Your task to perform on an android device: open wifi settings Image 0: 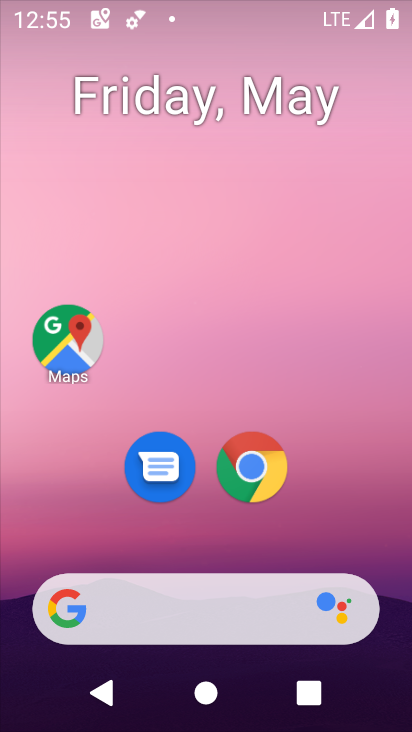
Step 0: click (275, 496)
Your task to perform on an android device: open wifi settings Image 1: 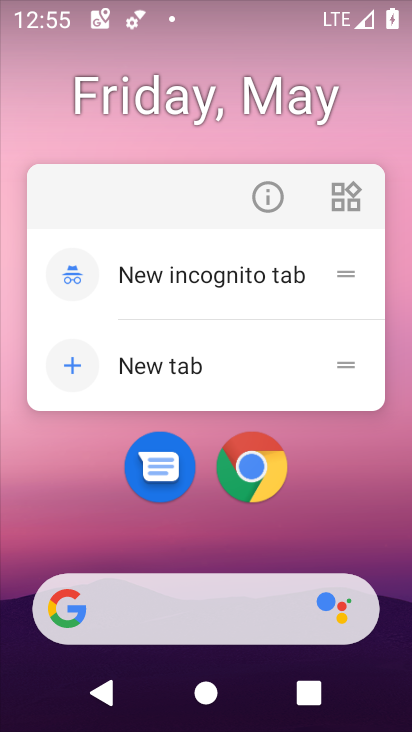
Step 1: click (269, 480)
Your task to perform on an android device: open wifi settings Image 2: 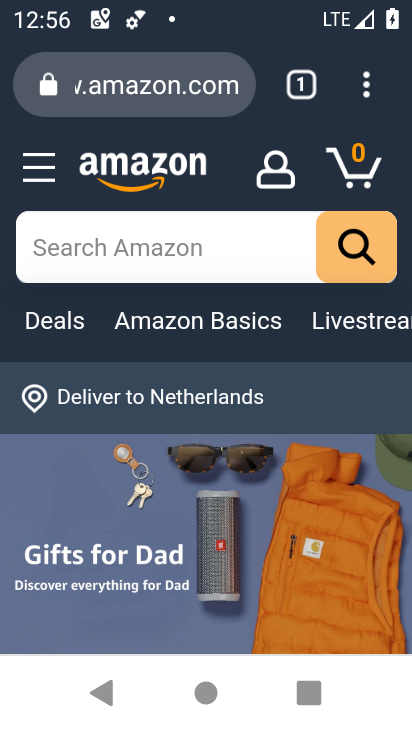
Step 2: press home button
Your task to perform on an android device: open wifi settings Image 3: 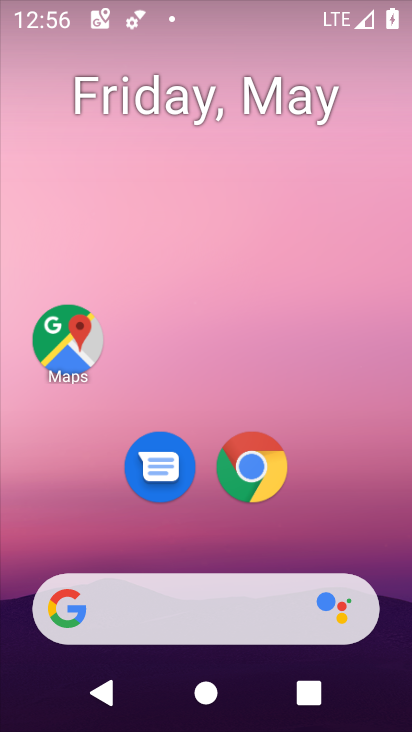
Step 3: drag from (332, 508) to (289, 72)
Your task to perform on an android device: open wifi settings Image 4: 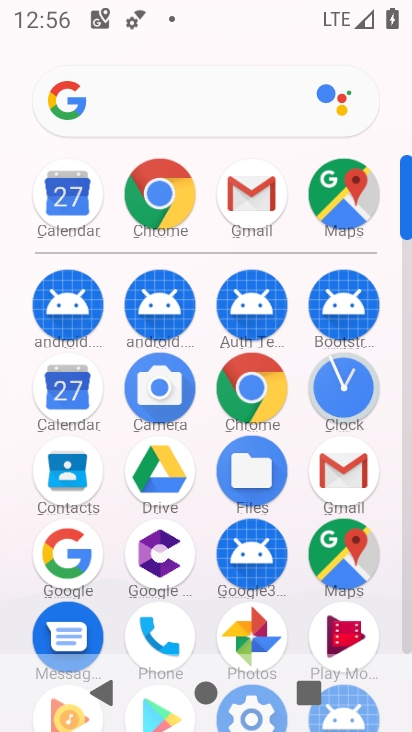
Step 4: drag from (392, 633) to (383, 295)
Your task to perform on an android device: open wifi settings Image 5: 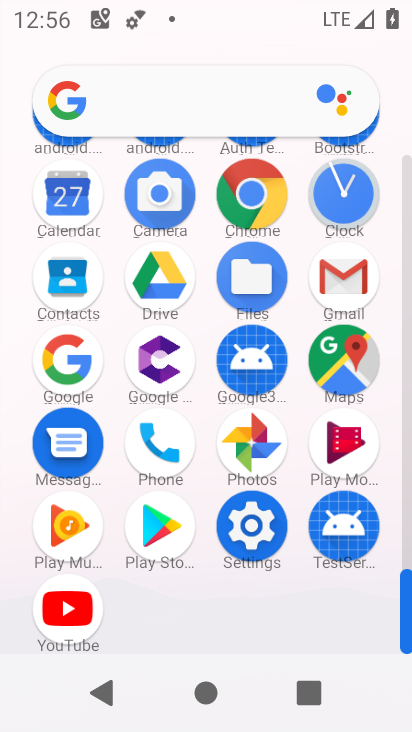
Step 5: click (269, 520)
Your task to perform on an android device: open wifi settings Image 6: 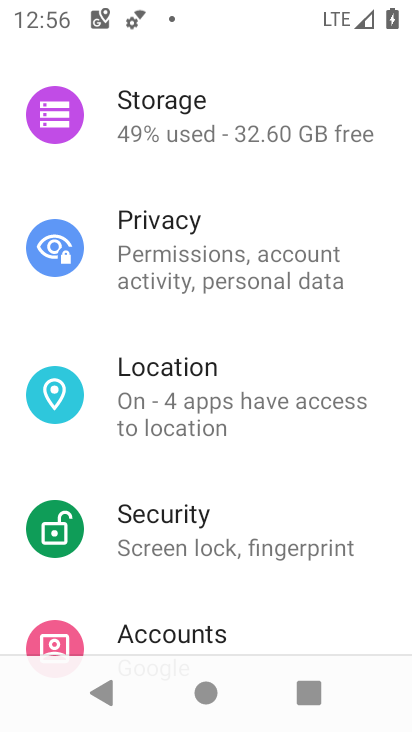
Step 6: drag from (217, 158) to (178, 586)
Your task to perform on an android device: open wifi settings Image 7: 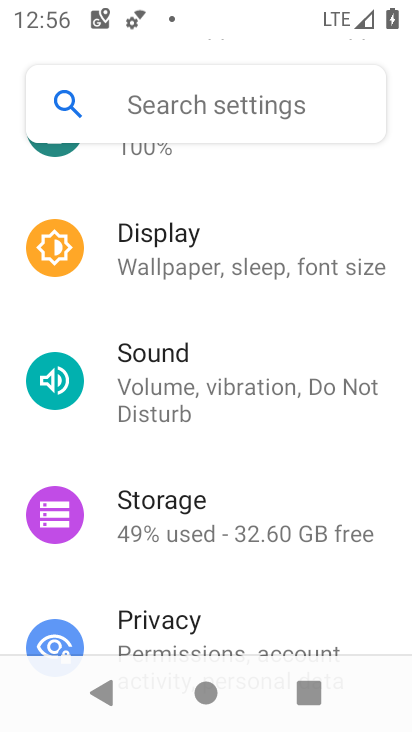
Step 7: drag from (220, 374) to (217, 607)
Your task to perform on an android device: open wifi settings Image 8: 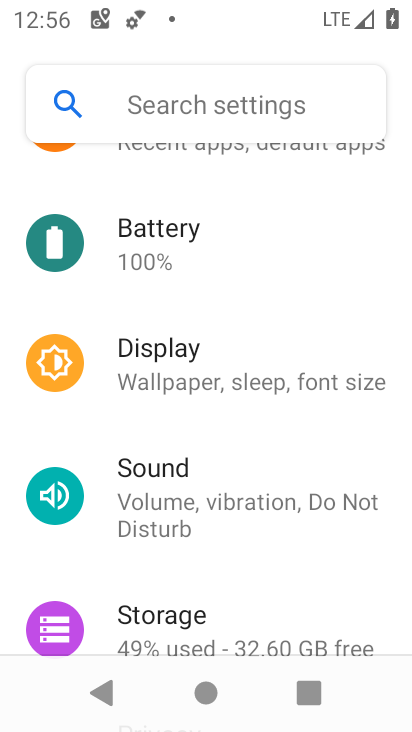
Step 8: drag from (180, 217) to (188, 565)
Your task to perform on an android device: open wifi settings Image 9: 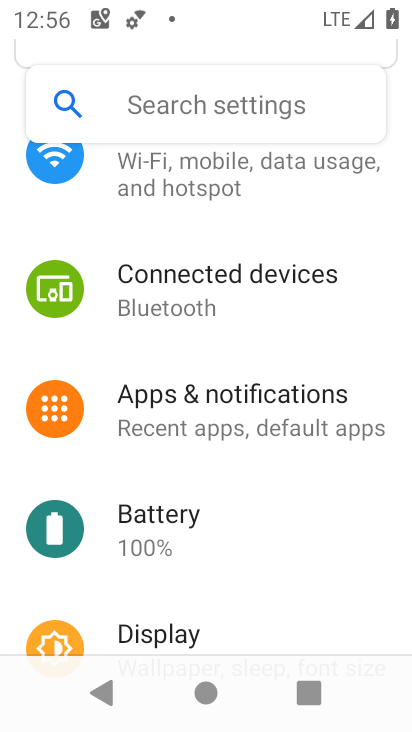
Step 9: drag from (262, 281) to (278, 614)
Your task to perform on an android device: open wifi settings Image 10: 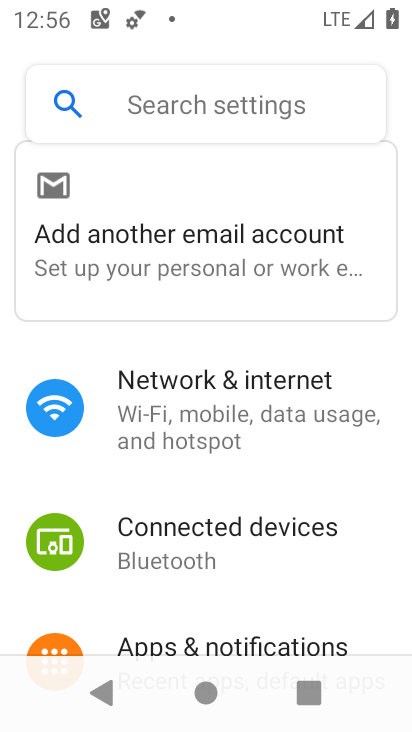
Step 10: drag from (273, 366) to (270, 626)
Your task to perform on an android device: open wifi settings Image 11: 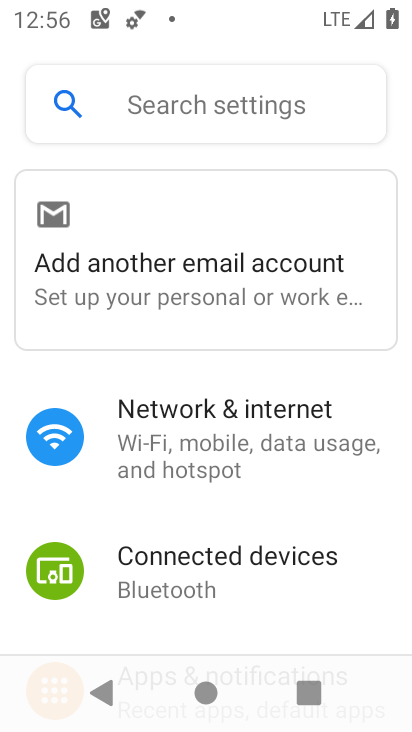
Step 11: drag from (236, 362) to (236, 620)
Your task to perform on an android device: open wifi settings Image 12: 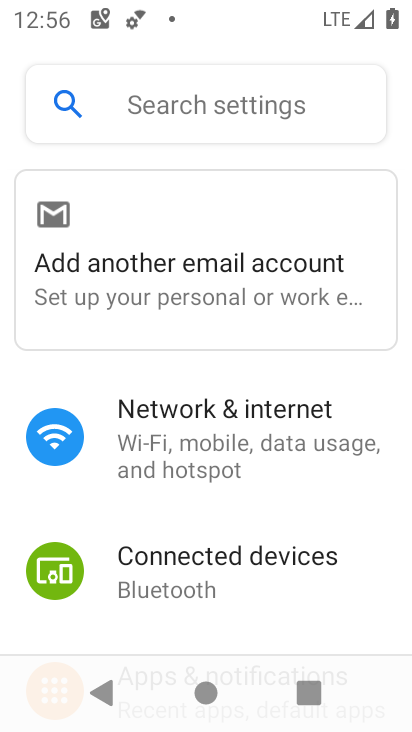
Step 12: click (233, 617)
Your task to perform on an android device: open wifi settings Image 13: 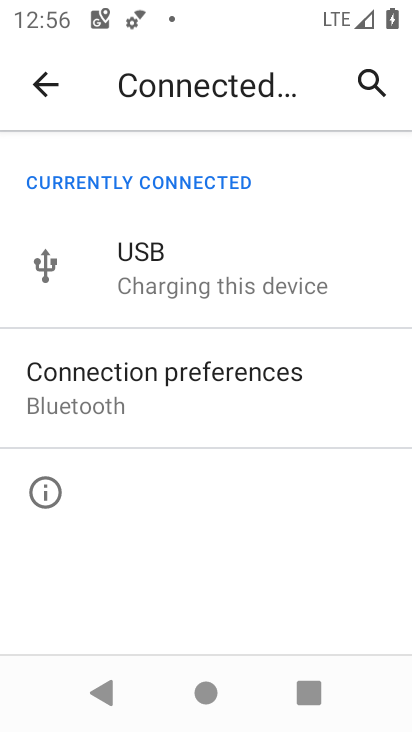
Step 13: click (43, 94)
Your task to perform on an android device: open wifi settings Image 14: 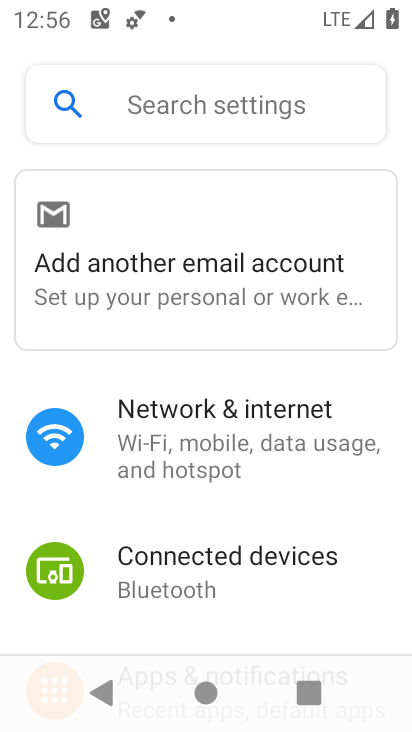
Step 14: click (161, 441)
Your task to perform on an android device: open wifi settings Image 15: 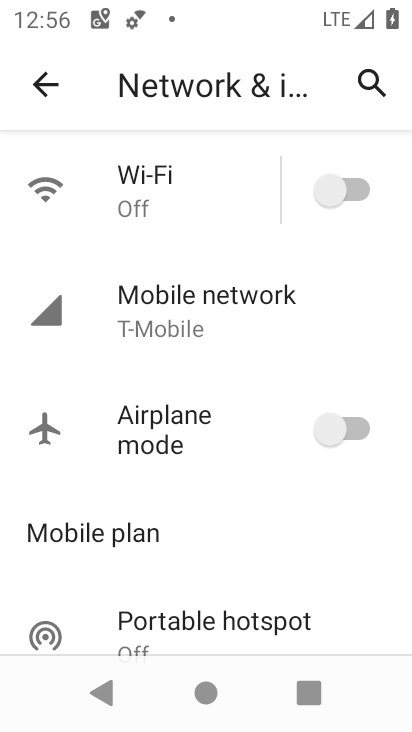
Step 15: click (261, 176)
Your task to perform on an android device: open wifi settings Image 16: 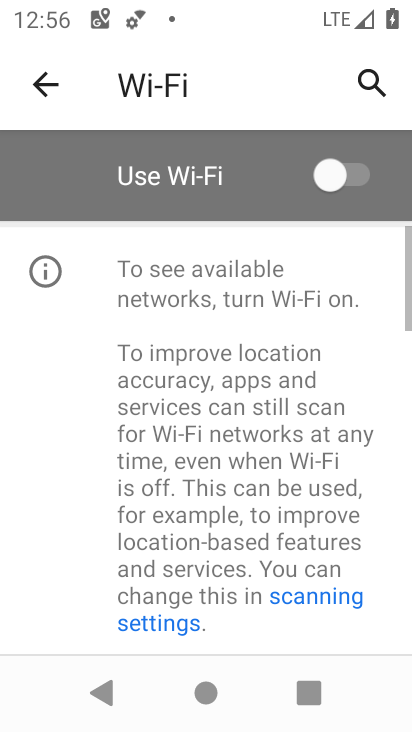
Step 16: task complete